Your task to perform on an android device: Open Android settings Image 0: 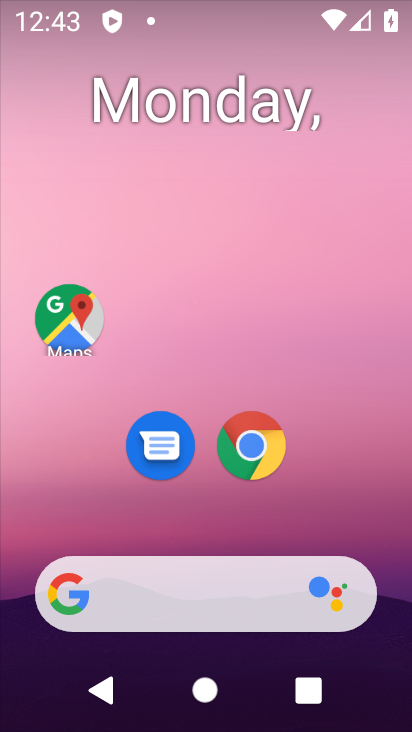
Step 0: drag from (390, 641) to (356, 202)
Your task to perform on an android device: Open Android settings Image 1: 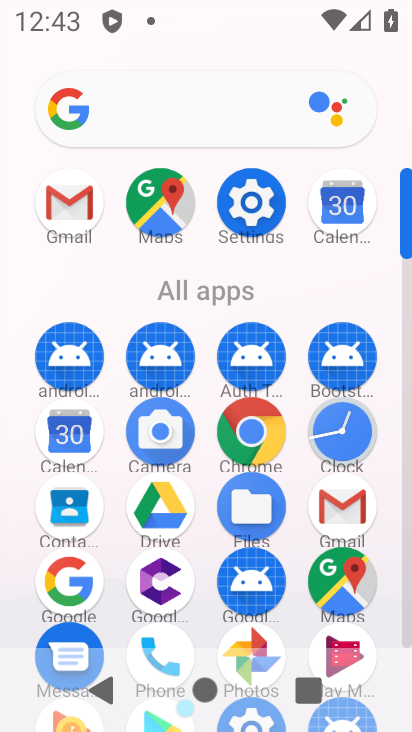
Step 1: click (405, 631)
Your task to perform on an android device: Open Android settings Image 2: 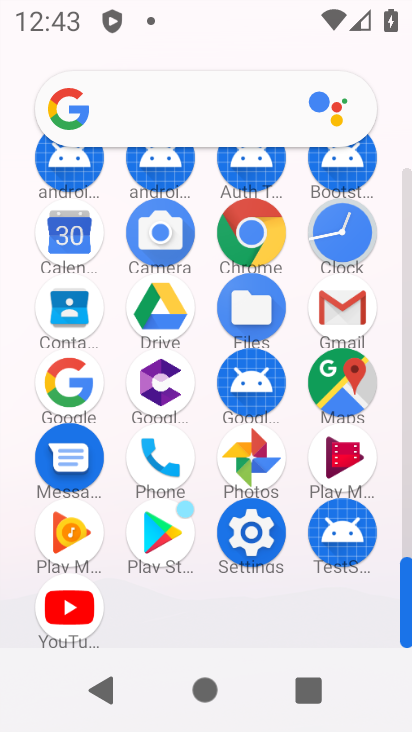
Step 2: click (250, 541)
Your task to perform on an android device: Open Android settings Image 3: 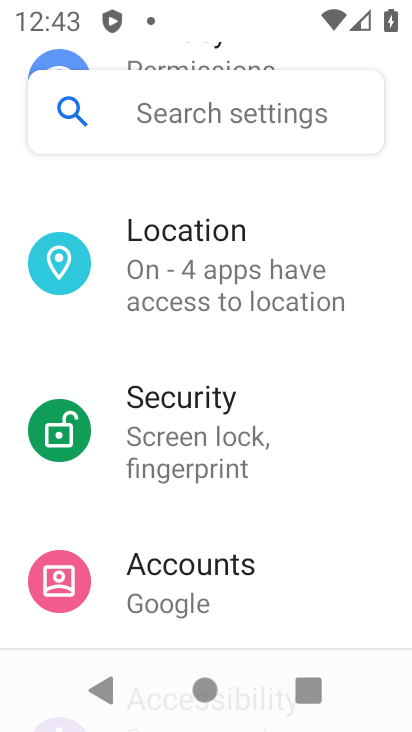
Step 3: drag from (299, 609) to (293, 165)
Your task to perform on an android device: Open Android settings Image 4: 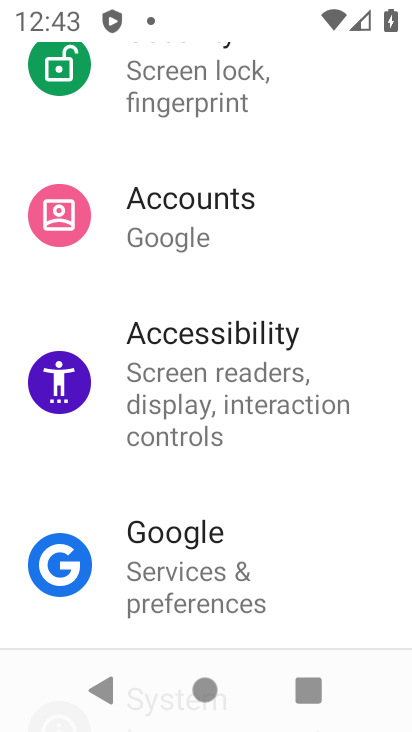
Step 4: drag from (305, 570) to (335, 197)
Your task to perform on an android device: Open Android settings Image 5: 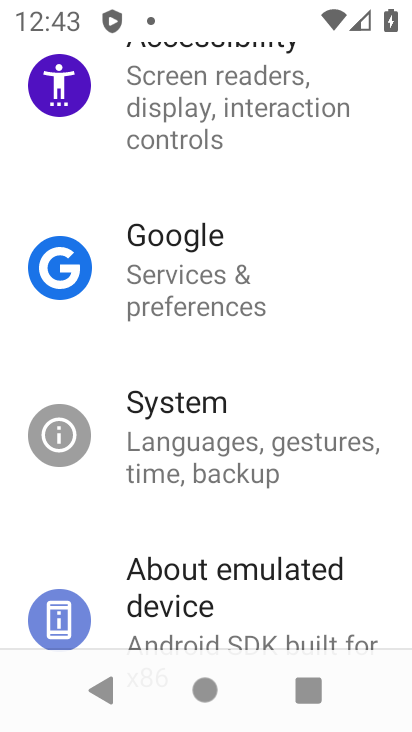
Step 5: drag from (322, 583) to (324, 267)
Your task to perform on an android device: Open Android settings Image 6: 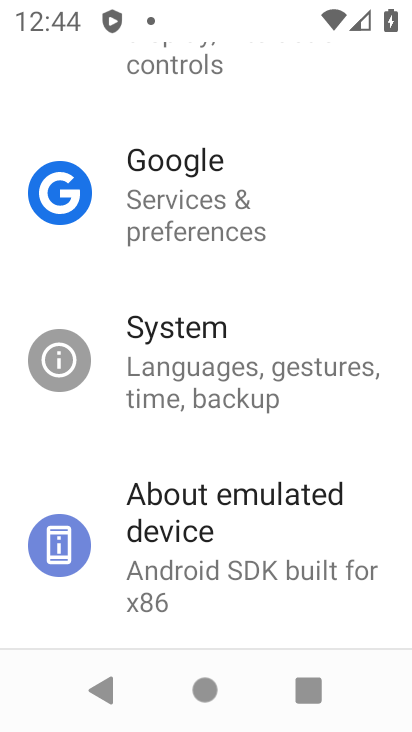
Step 6: click (214, 538)
Your task to perform on an android device: Open Android settings Image 7: 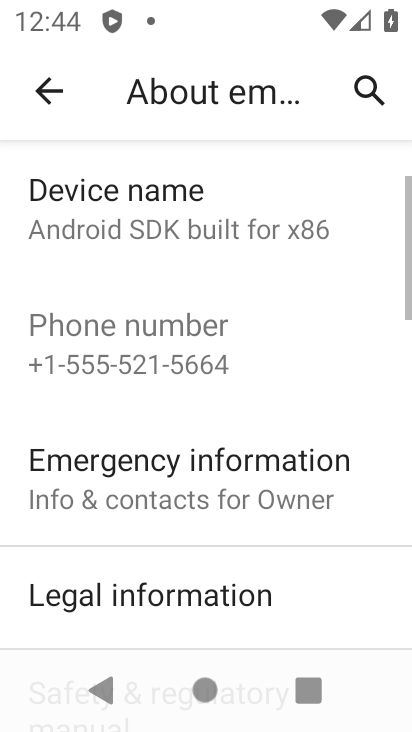
Step 7: task complete